Your task to perform on an android device: Search for usb-a on walmart, select the first entry, and add it to the cart. Image 0: 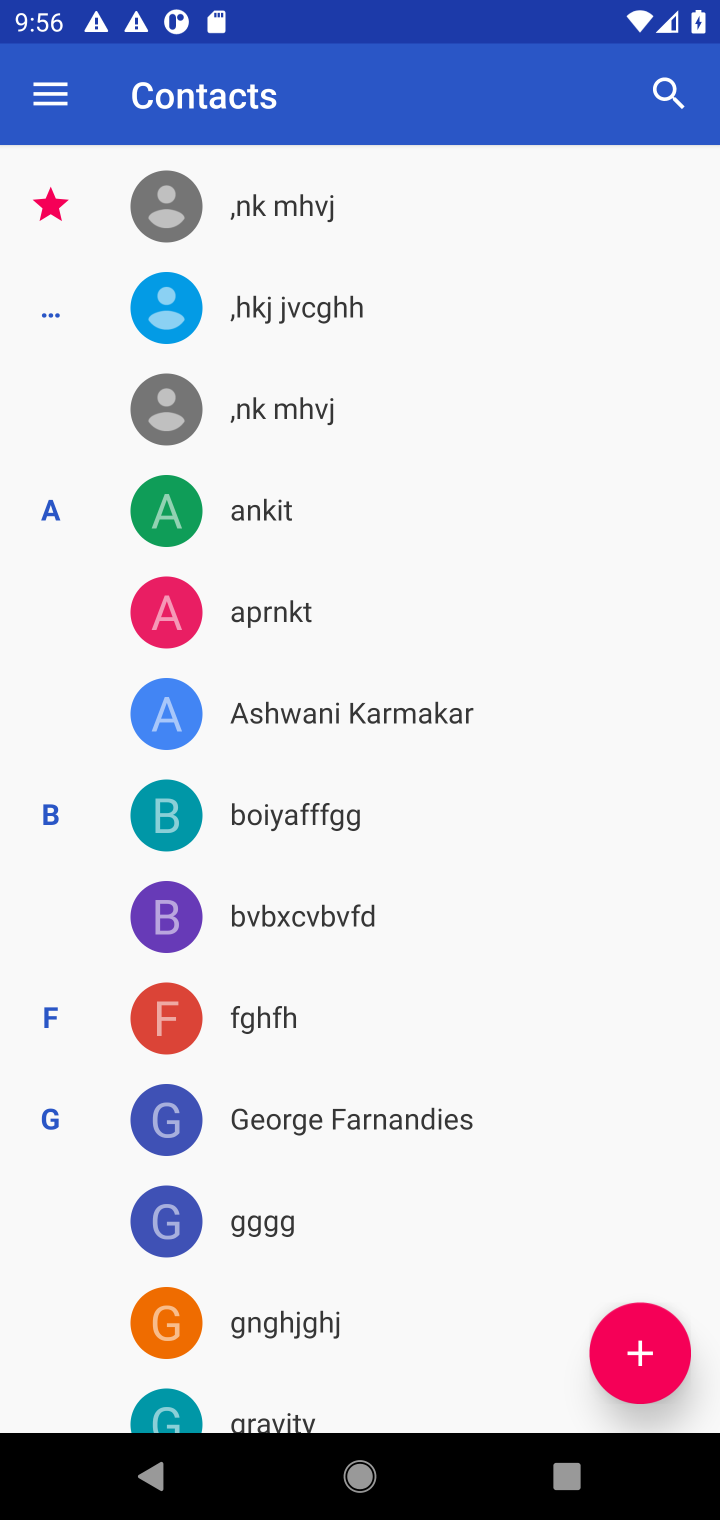
Step 0: press home button
Your task to perform on an android device: Search for usb-a on walmart, select the first entry, and add it to the cart. Image 1: 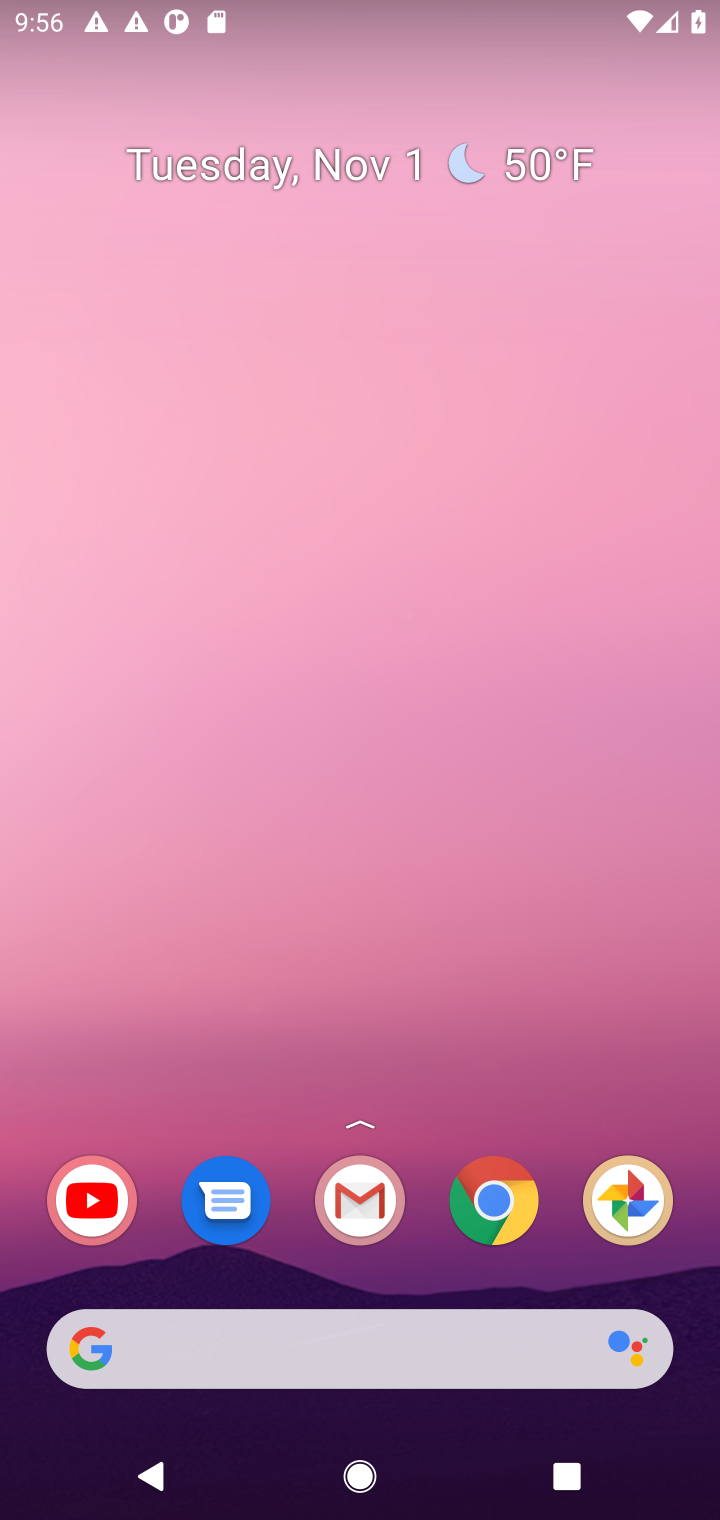
Step 1: click (340, 1340)
Your task to perform on an android device: Search for usb-a on walmart, select the first entry, and add it to the cart. Image 2: 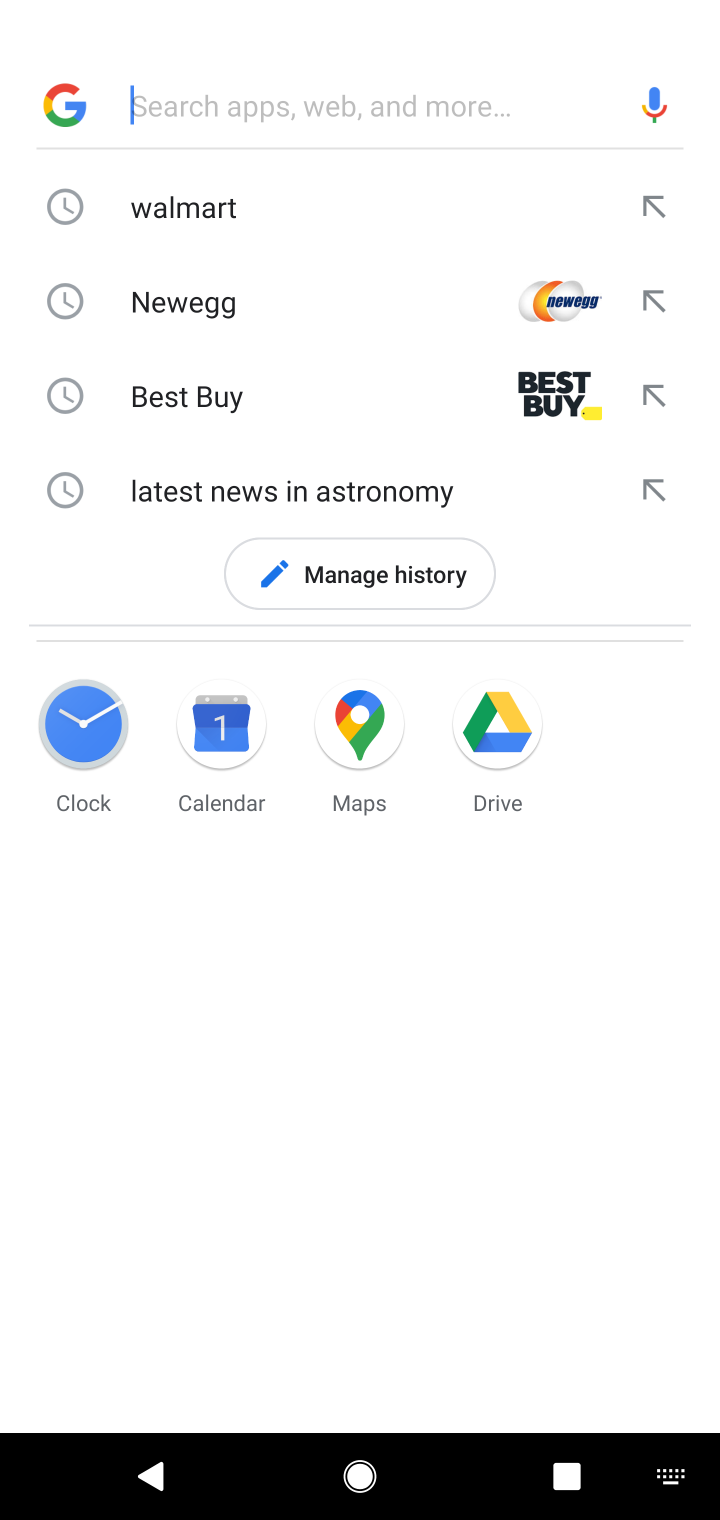
Step 2: type "walmart"
Your task to perform on an android device: Search for usb-a on walmart, select the first entry, and add it to the cart. Image 3: 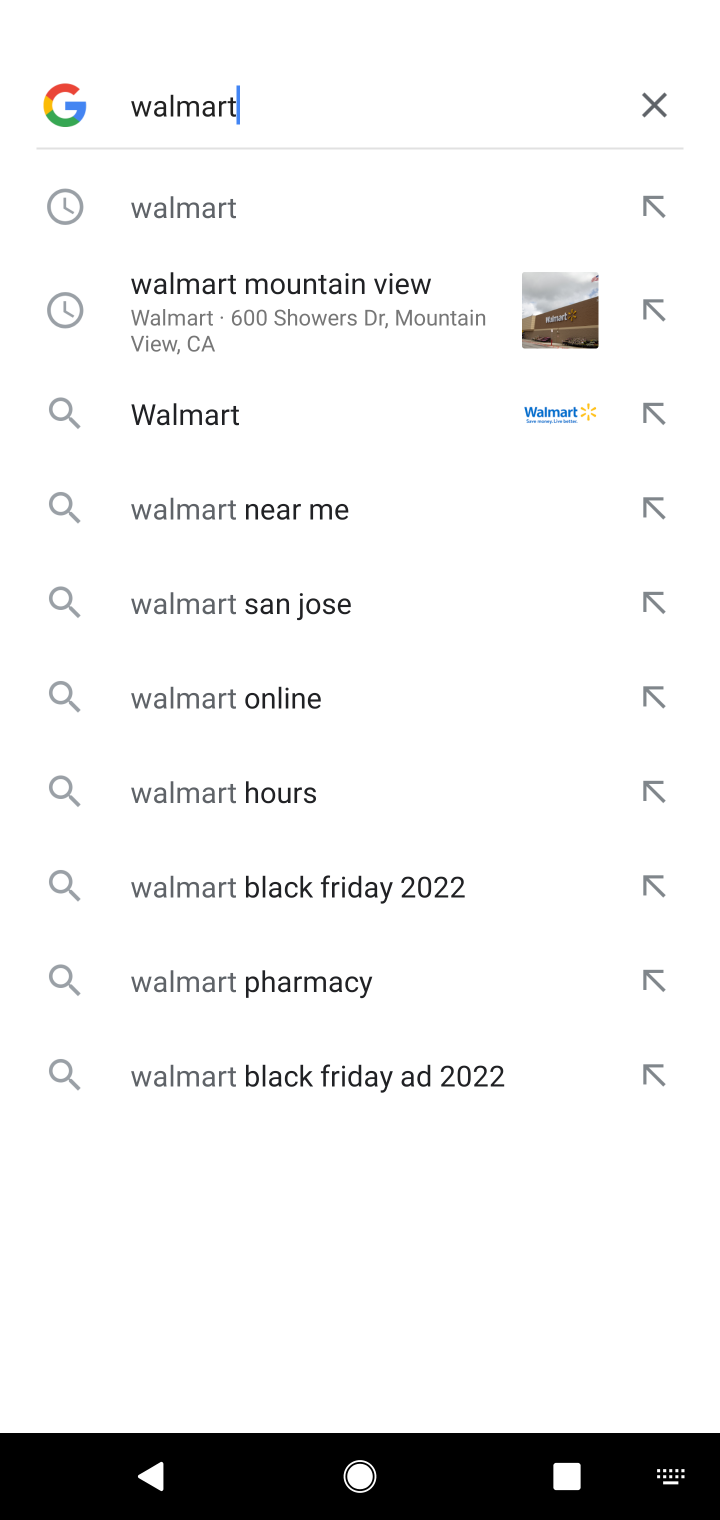
Step 3: click (217, 179)
Your task to perform on an android device: Search for usb-a on walmart, select the first entry, and add it to the cart. Image 4: 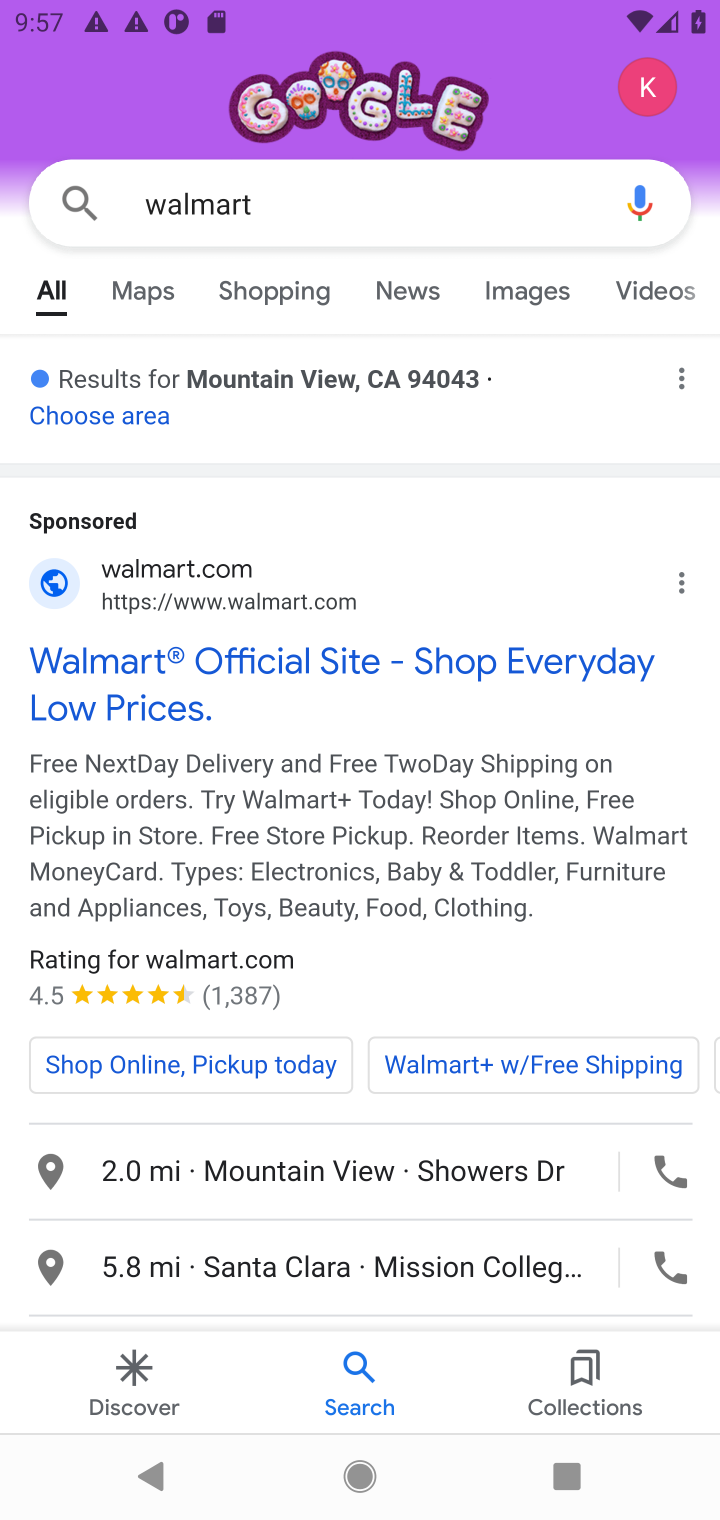
Step 4: click (117, 662)
Your task to perform on an android device: Search for usb-a on walmart, select the first entry, and add it to the cart. Image 5: 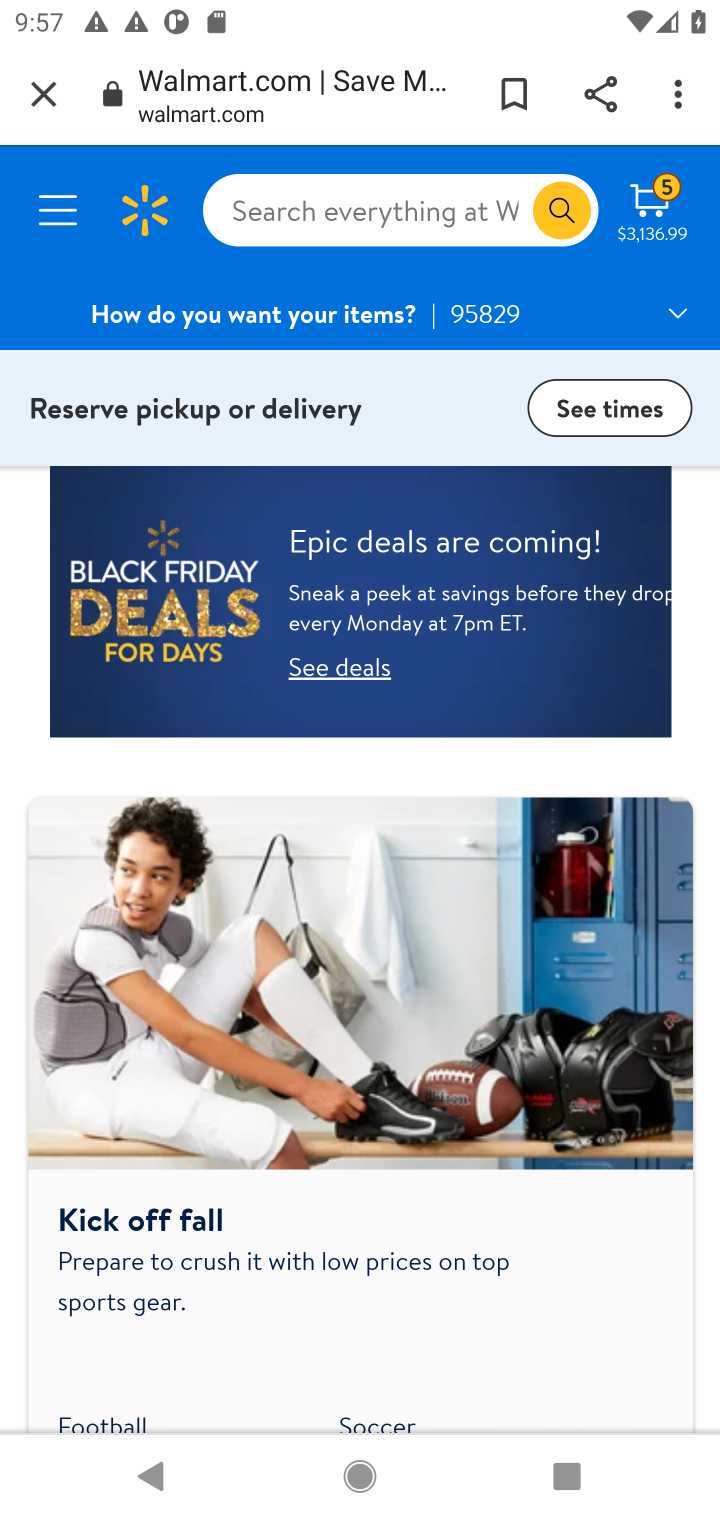
Step 5: click (423, 212)
Your task to perform on an android device: Search for usb-a on walmart, select the first entry, and add it to the cart. Image 6: 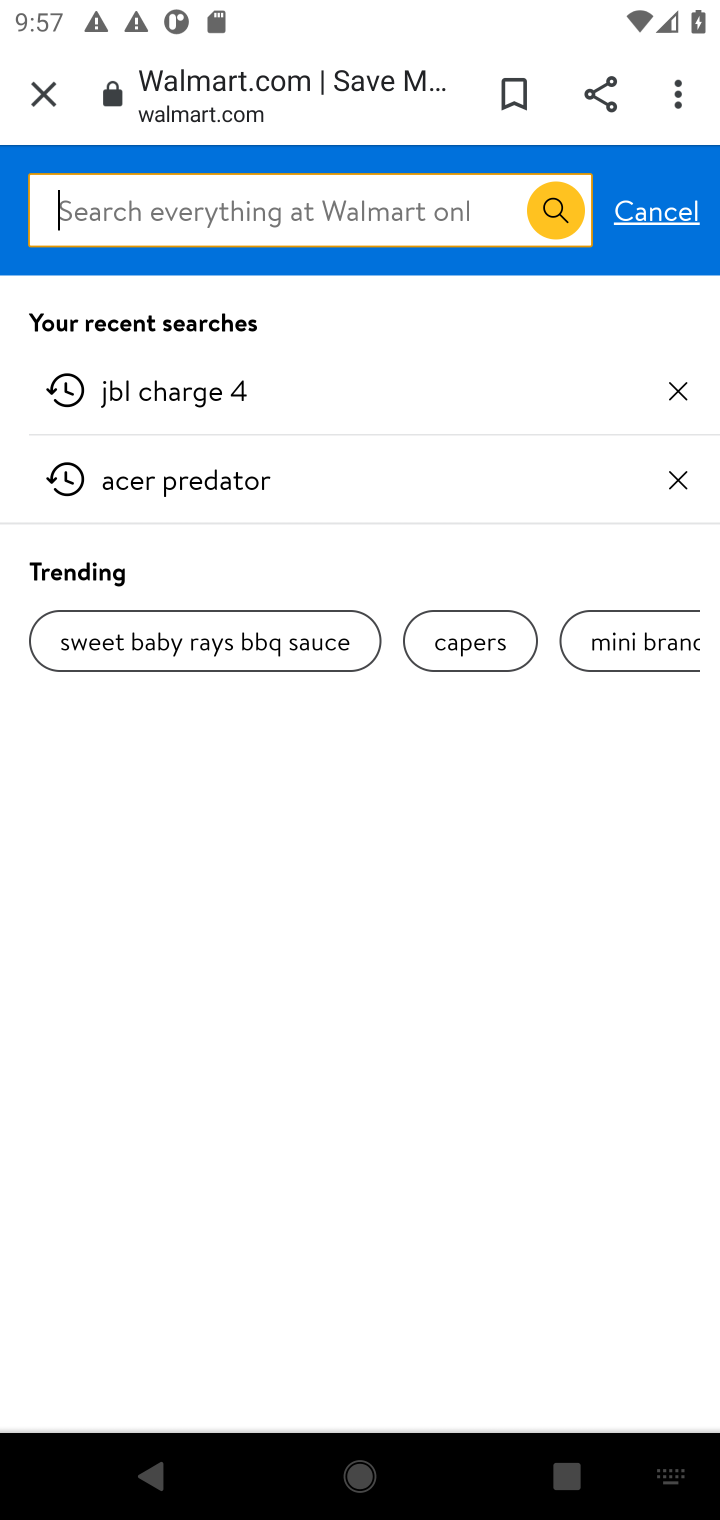
Step 6: type "usb-a on"
Your task to perform on an android device: Search for usb-a on walmart, select the first entry, and add it to the cart. Image 7: 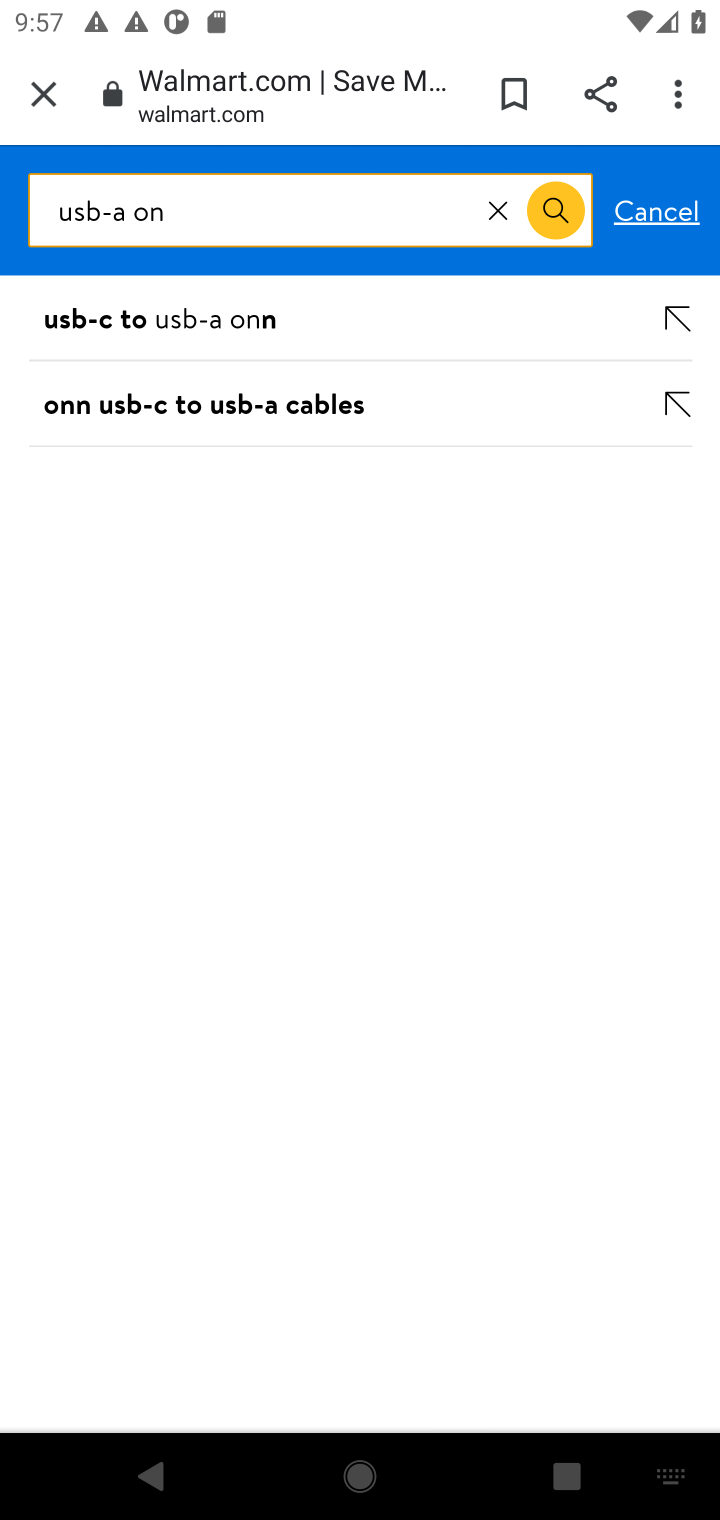
Step 7: click (543, 216)
Your task to perform on an android device: Search for usb-a on walmart, select the first entry, and add it to the cart. Image 8: 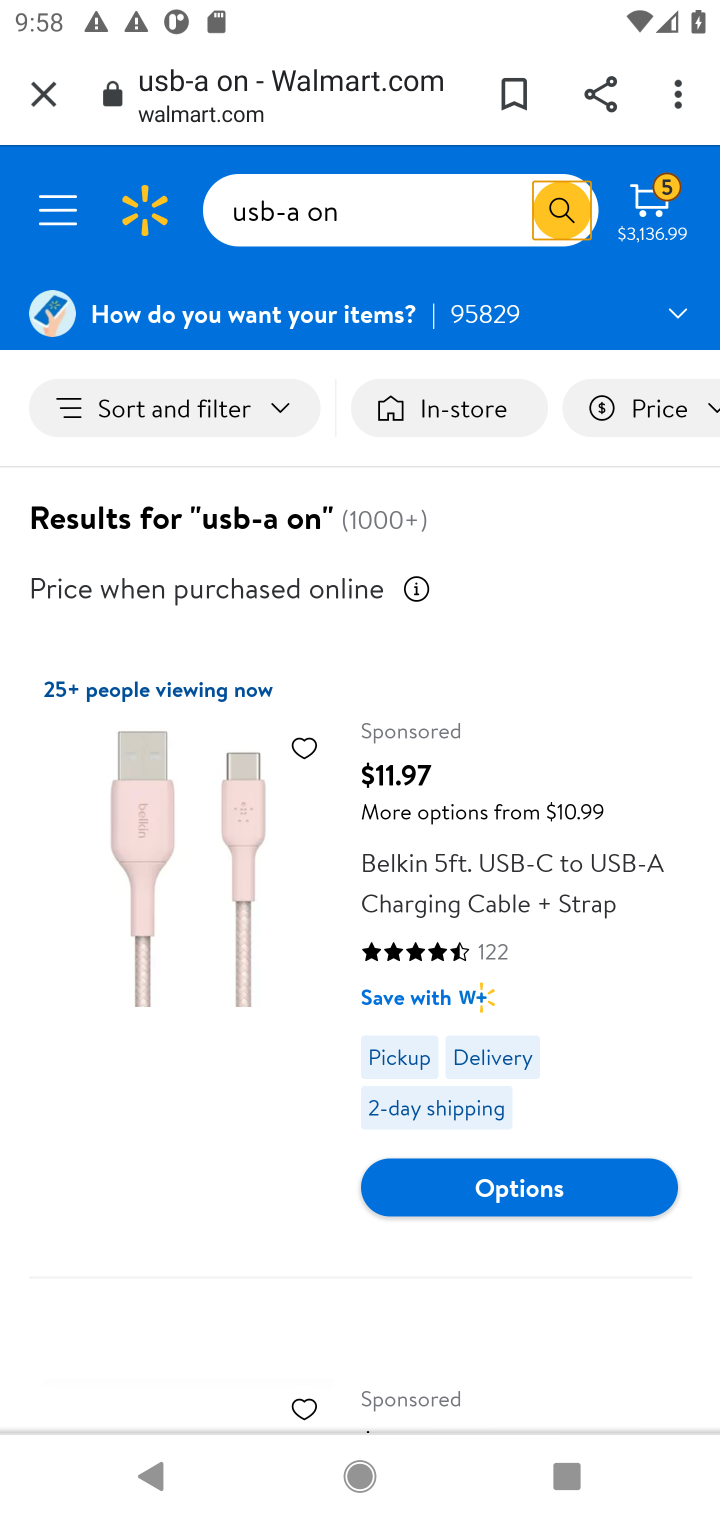
Step 8: click (565, 1163)
Your task to perform on an android device: Search for usb-a on walmart, select the first entry, and add it to the cart. Image 9: 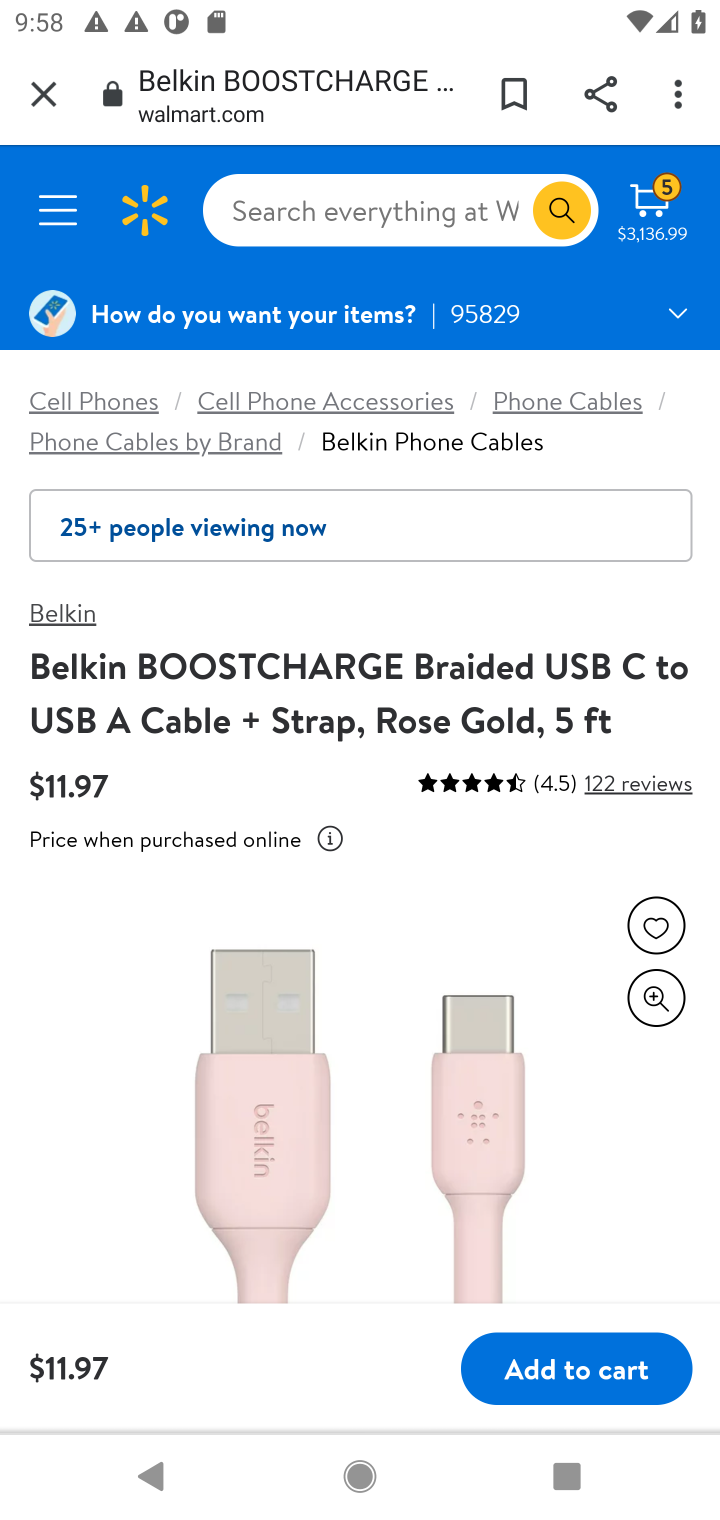
Step 9: click (586, 1356)
Your task to perform on an android device: Search for usb-a on walmart, select the first entry, and add it to the cart. Image 10: 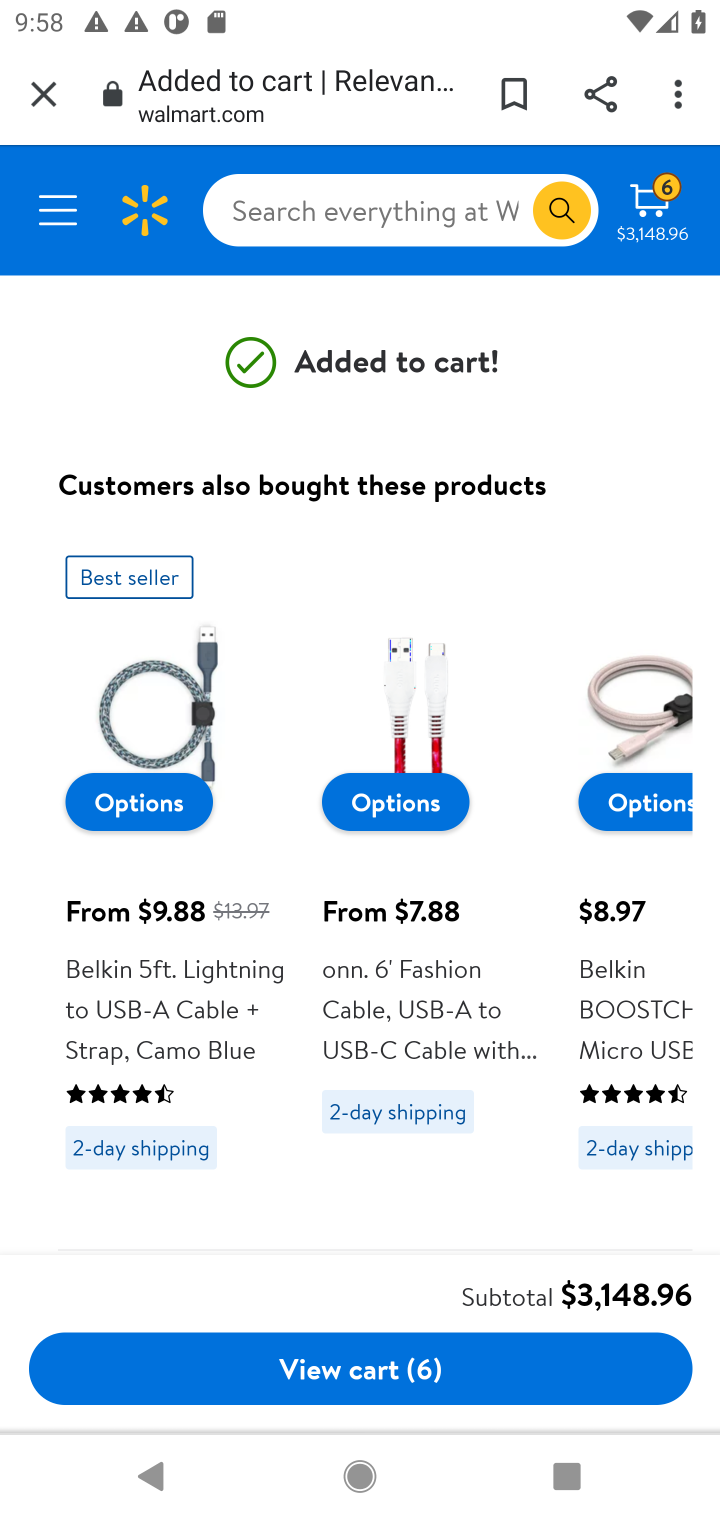
Step 10: task complete